Your task to perform on an android device: make emails show in primary in the gmail app Image 0: 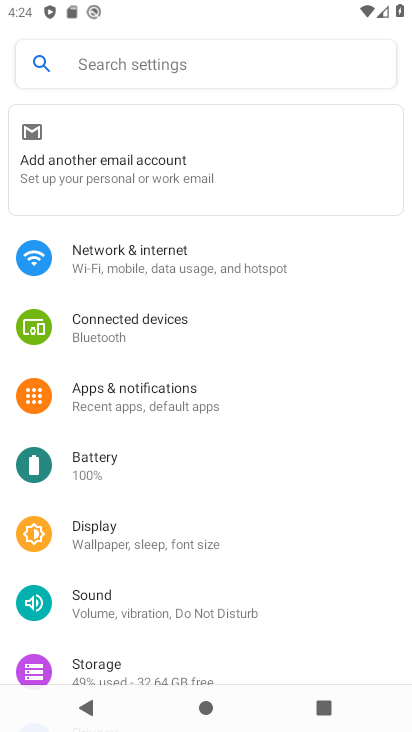
Step 0: press home button
Your task to perform on an android device: make emails show in primary in the gmail app Image 1: 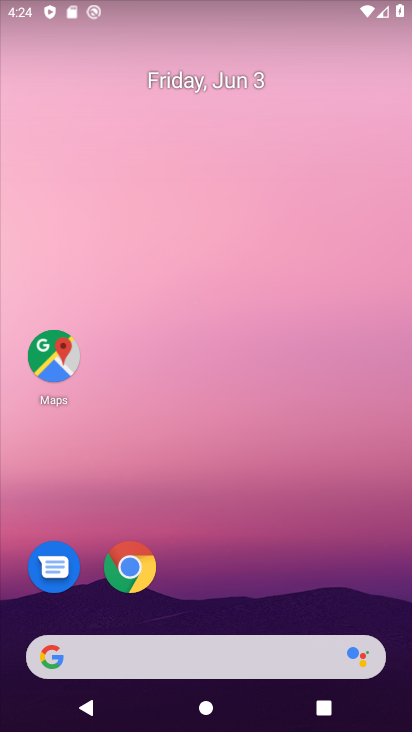
Step 1: drag from (248, 577) to (215, 170)
Your task to perform on an android device: make emails show in primary in the gmail app Image 2: 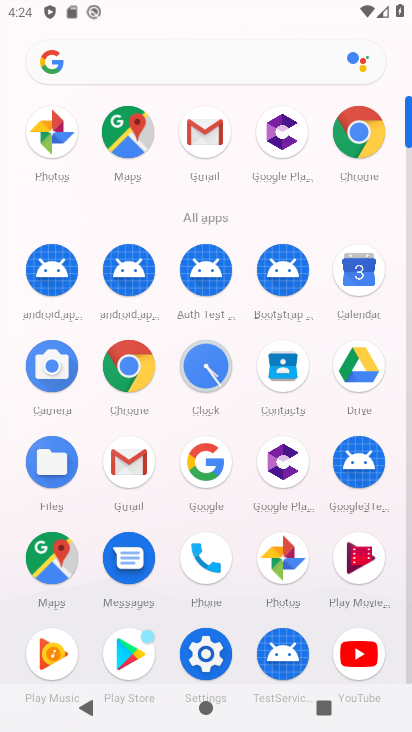
Step 2: click (206, 127)
Your task to perform on an android device: make emails show in primary in the gmail app Image 3: 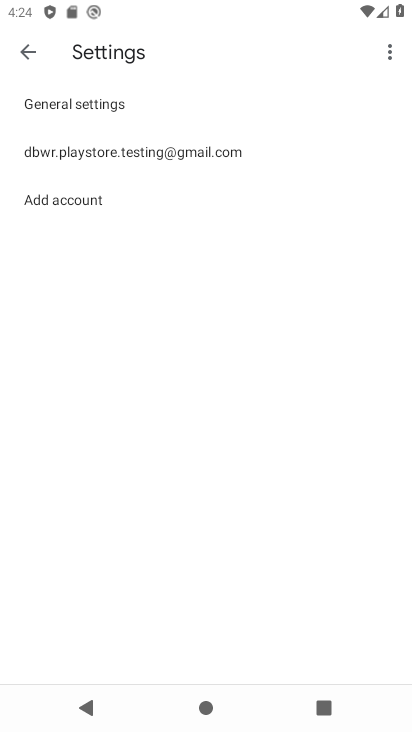
Step 3: click (26, 42)
Your task to perform on an android device: make emails show in primary in the gmail app Image 4: 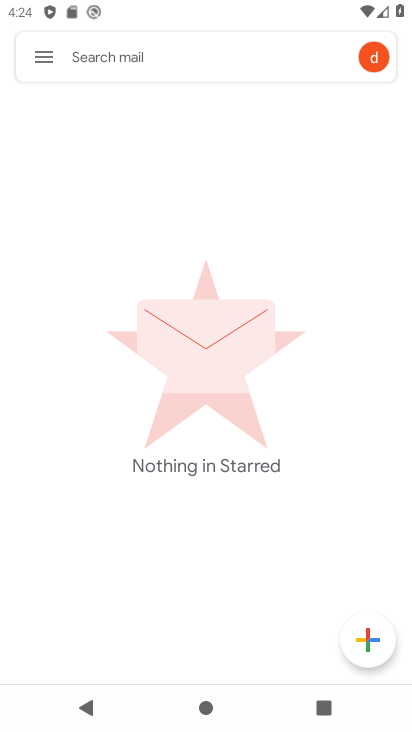
Step 4: click (40, 54)
Your task to perform on an android device: make emails show in primary in the gmail app Image 5: 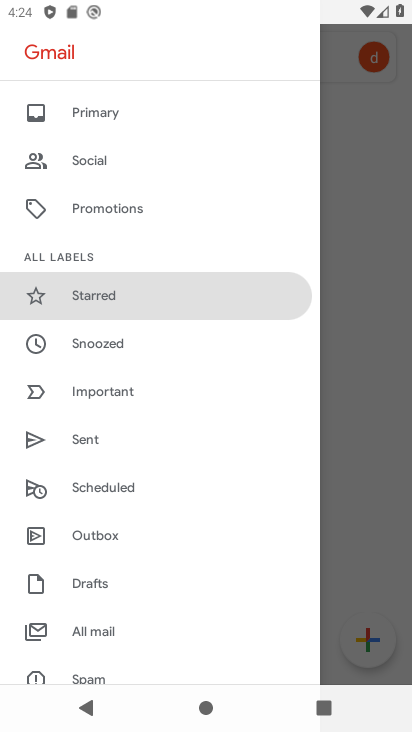
Step 5: click (118, 110)
Your task to perform on an android device: make emails show in primary in the gmail app Image 6: 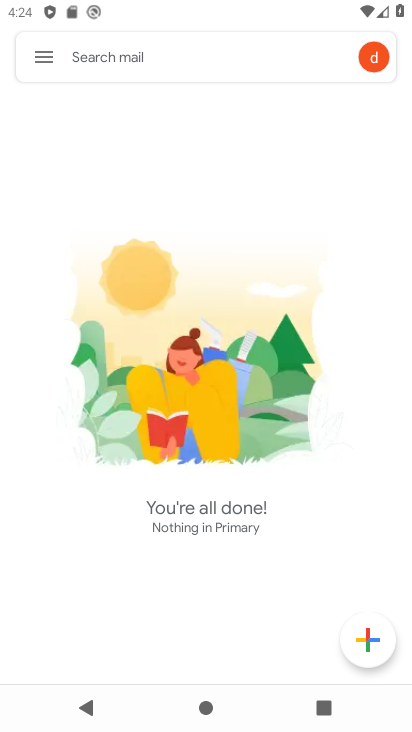
Step 6: task complete